Your task to perform on an android device: Open location settings Image 0: 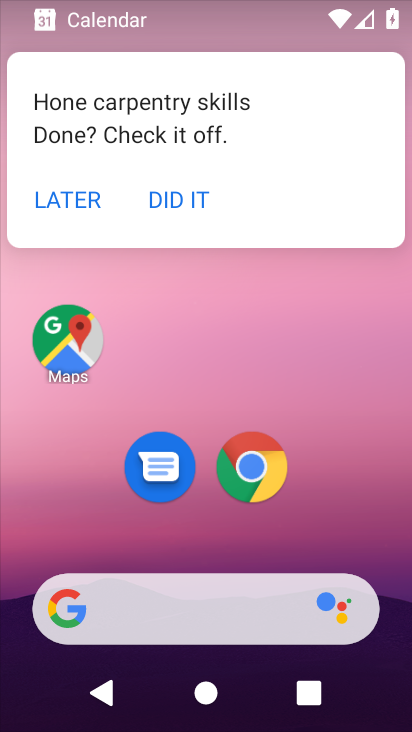
Step 0: drag from (396, 595) to (299, 17)
Your task to perform on an android device: Open location settings Image 1: 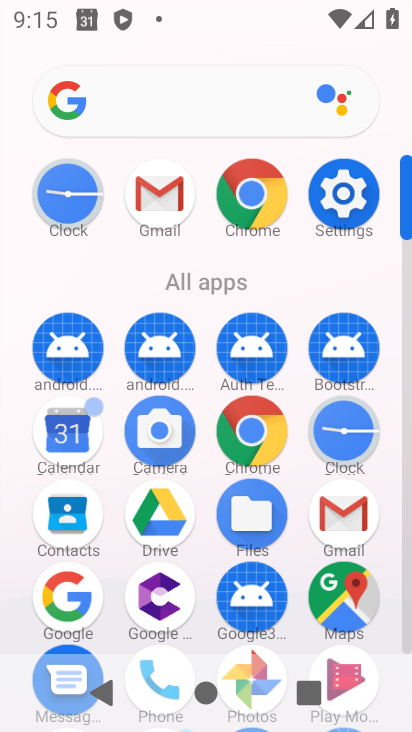
Step 1: click (341, 187)
Your task to perform on an android device: Open location settings Image 2: 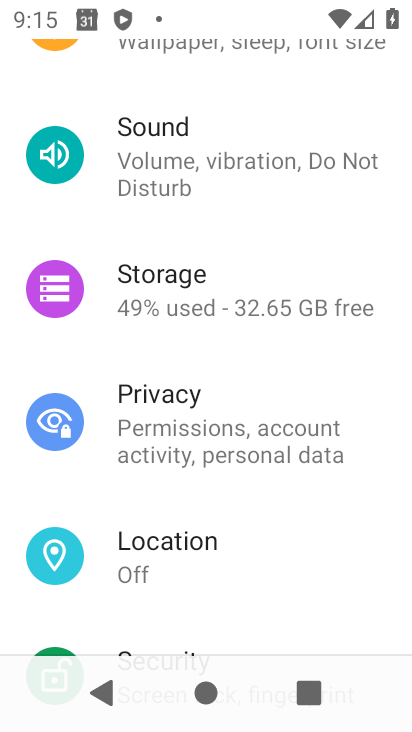
Step 2: click (197, 549)
Your task to perform on an android device: Open location settings Image 3: 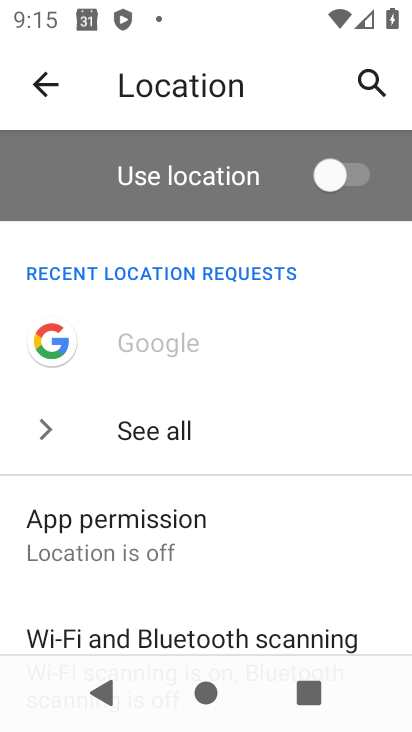
Step 3: task complete